Your task to perform on an android device: Go to battery settings Image 0: 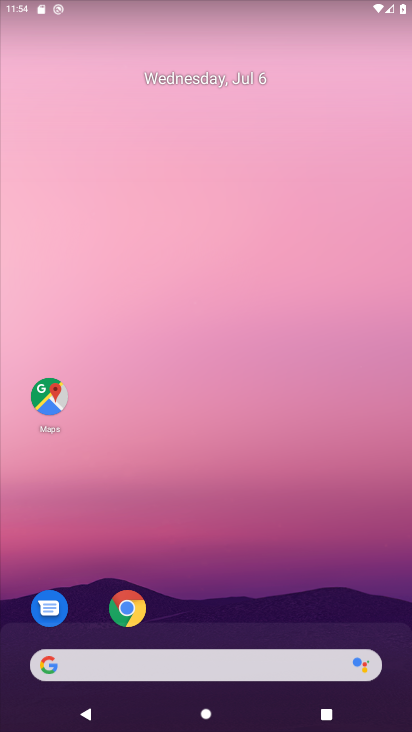
Step 0: drag from (236, 653) to (289, 27)
Your task to perform on an android device: Go to battery settings Image 1: 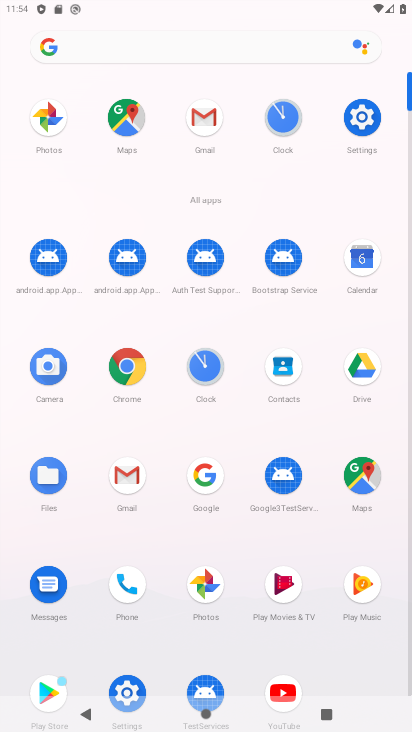
Step 1: click (133, 676)
Your task to perform on an android device: Go to battery settings Image 2: 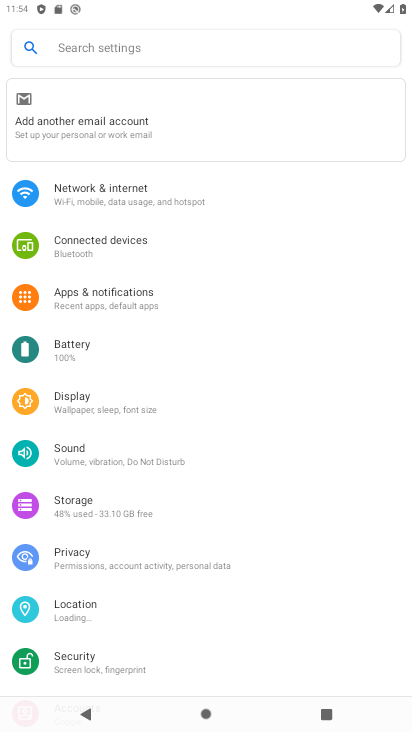
Step 2: click (109, 354)
Your task to perform on an android device: Go to battery settings Image 3: 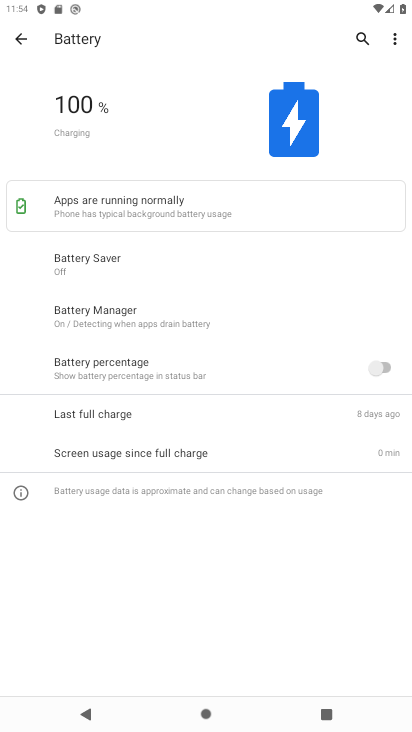
Step 3: task complete